Your task to perform on an android device: turn on sleep mode Image 0: 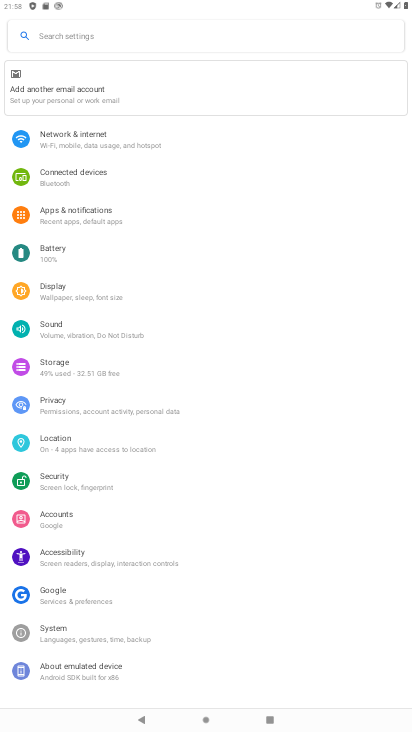
Step 0: click (52, 296)
Your task to perform on an android device: turn on sleep mode Image 1: 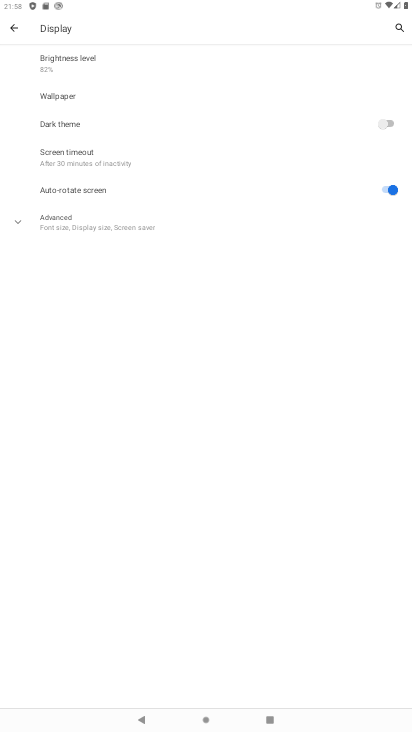
Step 1: click (73, 158)
Your task to perform on an android device: turn on sleep mode Image 2: 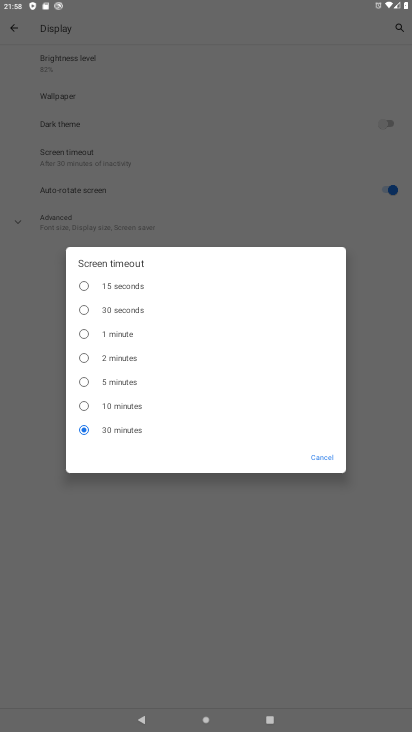
Step 2: task complete